Your task to perform on an android device: What is the news today? Image 0: 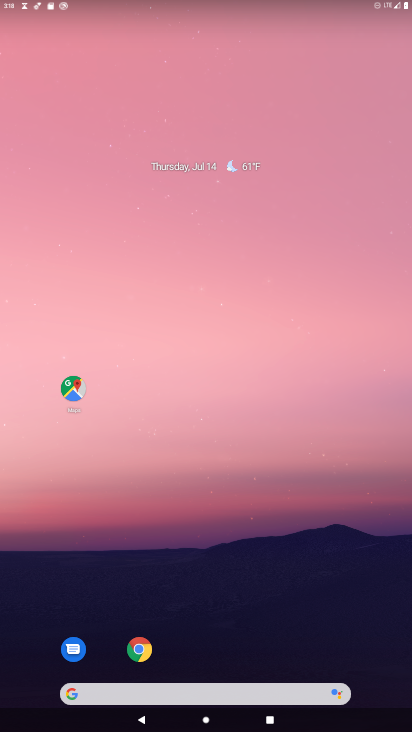
Step 0: drag from (284, 603) to (295, 199)
Your task to perform on an android device: What is the news today? Image 1: 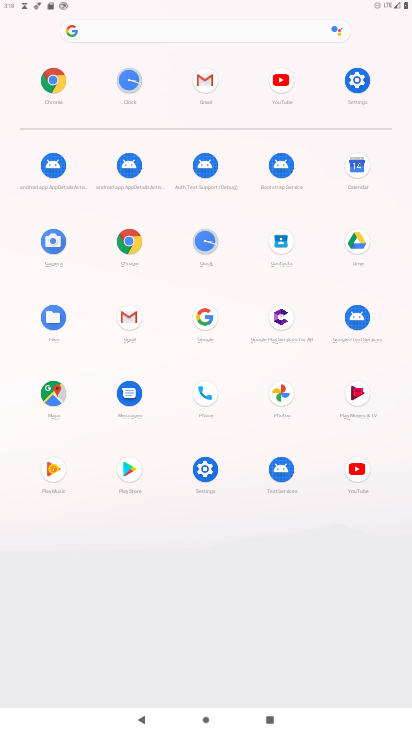
Step 1: click (127, 238)
Your task to perform on an android device: What is the news today? Image 2: 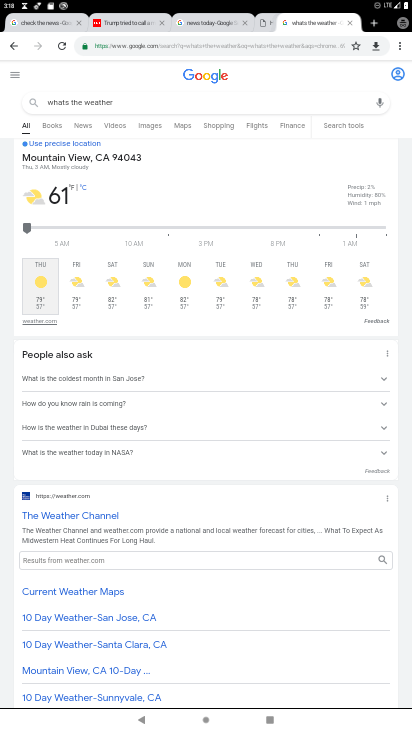
Step 2: click (274, 46)
Your task to perform on an android device: What is the news today? Image 3: 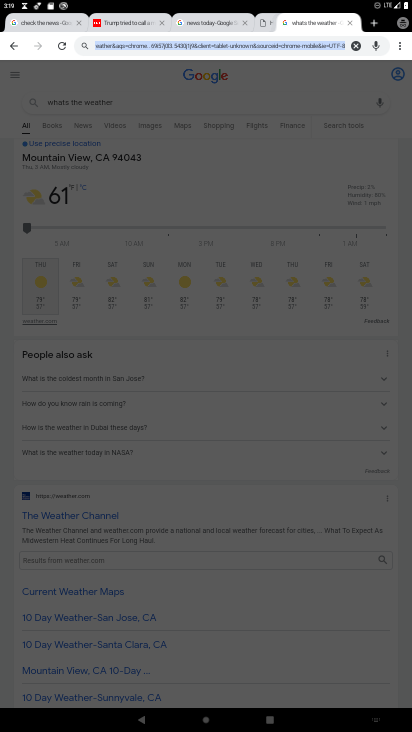
Step 3: type "what is the news today"
Your task to perform on an android device: What is the news today? Image 4: 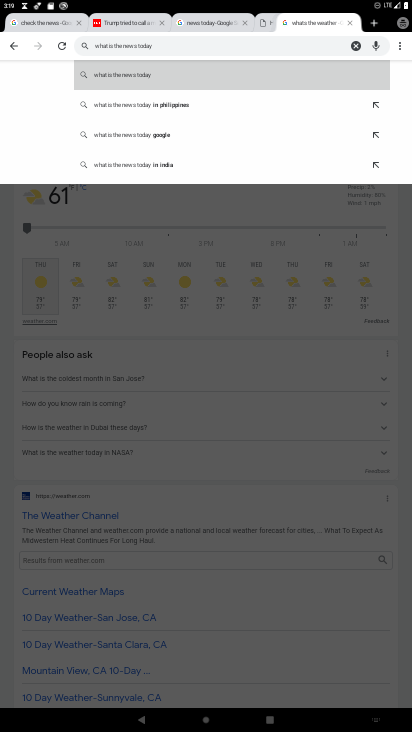
Step 4: click (235, 71)
Your task to perform on an android device: What is the news today? Image 5: 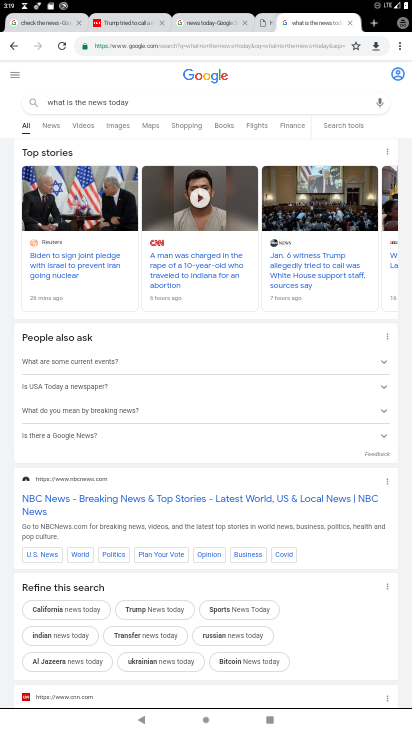
Step 5: task complete